Your task to perform on an android device: change keyboard looks Image 0: 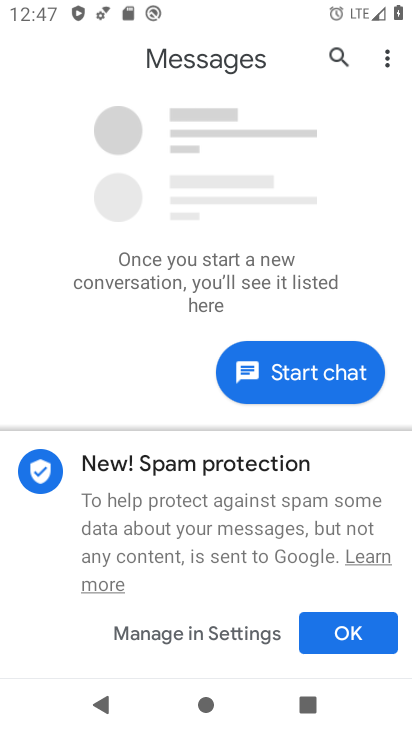
Step 0: press home button
Your task to perform on an android device: change keyboard looks Image 1: 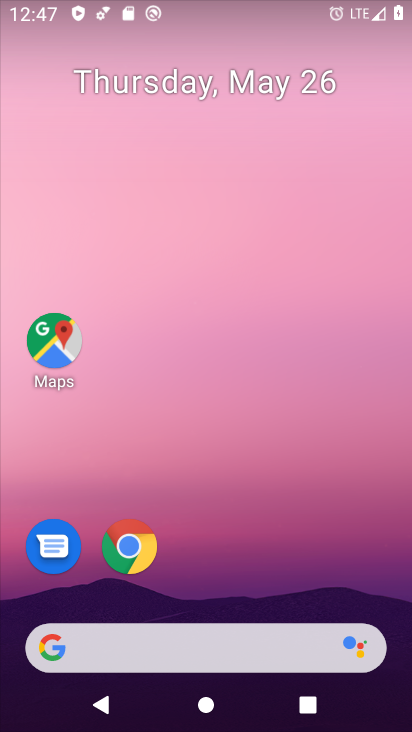
Step 1: drag from (383, 591) to (259, 22)
Your task to perform on an android device: change keyboard looks Image 2: 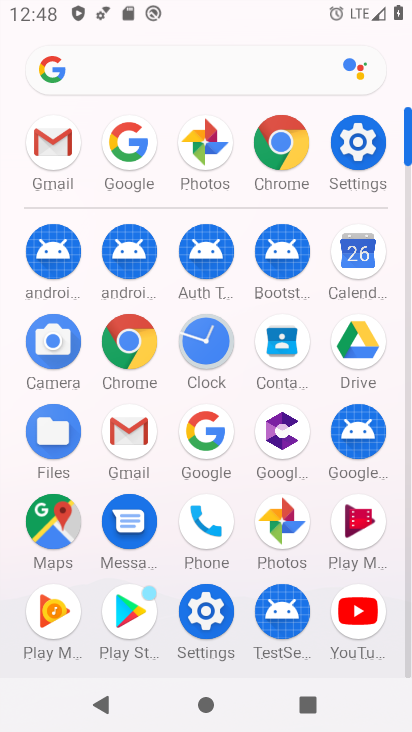
Step 2: click (230, 622)
Your task to perform on an android device: change keyboard looks Image 3: 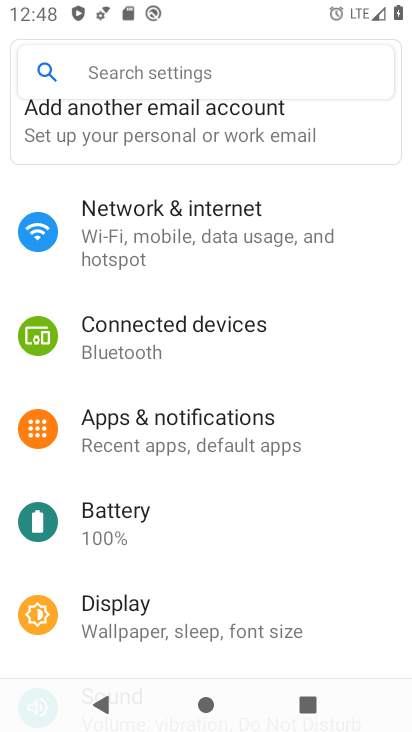
Step 3: drag from (117, 625) to (192, 133)
Your task to perform on an android device: change keyboard looks Image 4: 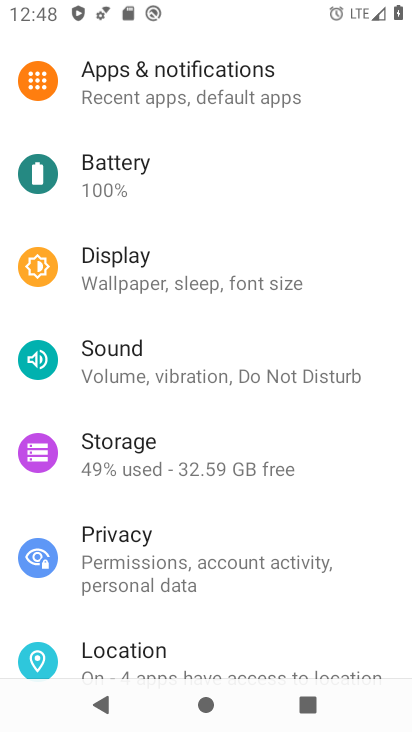
Step 4: drag from (177, 590) to (204, 111)
Your task to perform on an android device: change keyboard looks Image 5: 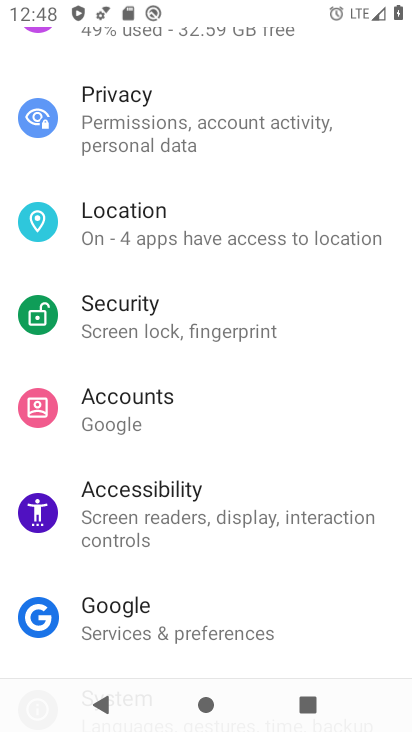
Step 5: drag from (177, 591) to (224, 83)
Your task to perform on an android device: change keyboard looks Image 6: 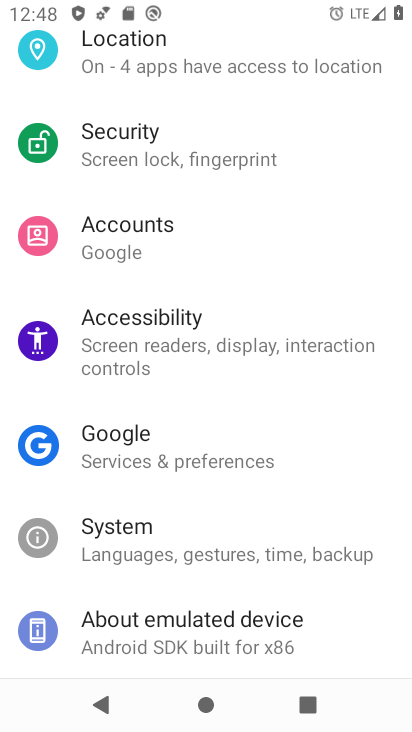
Step 6: click (231, 559)
Your task to perform on an android device: change keyboard looks Image 7: 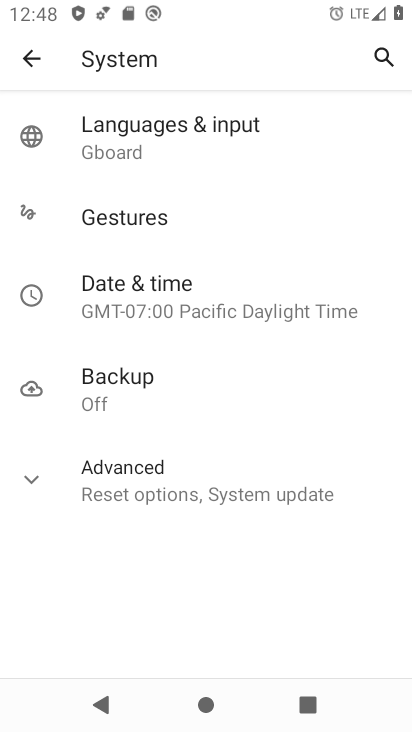
Step 7: click (271, 141)
Your task to perform on an android device: change keyboard looks Image 8: 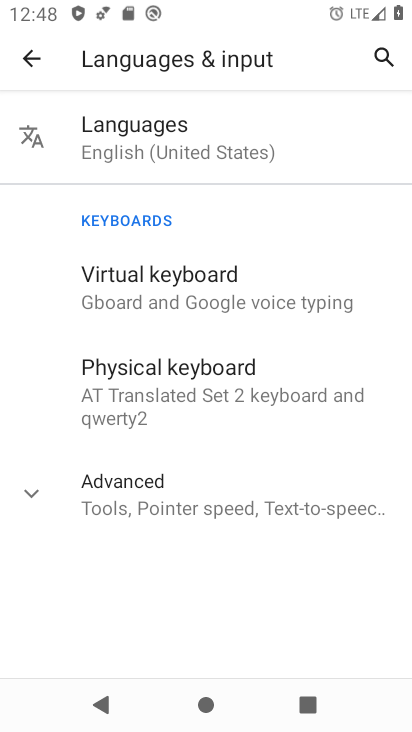
Step 8: click (135, 287)
Your task to perform on an android device: change keyboard looks Image 9: 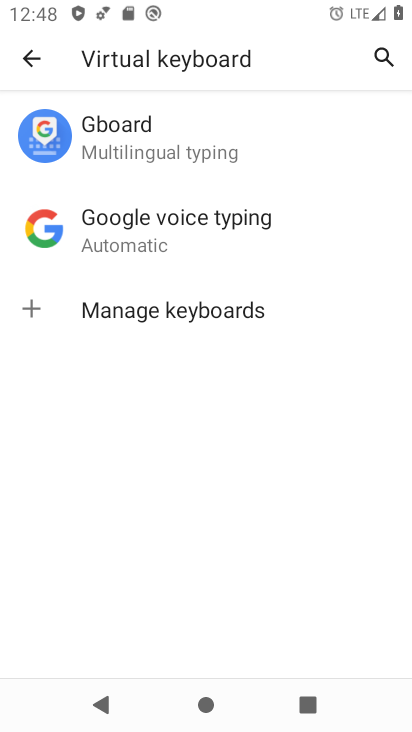
Step 9: click (207, 159)
Your task to perform on an android device: change keyboard looks Image 10: 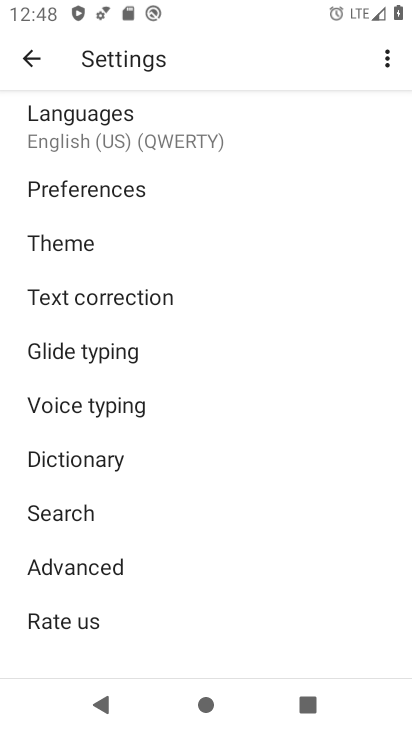
Step 10: click (103, 269)
Your task to perform on an android device: change keyboard looks Image 11: 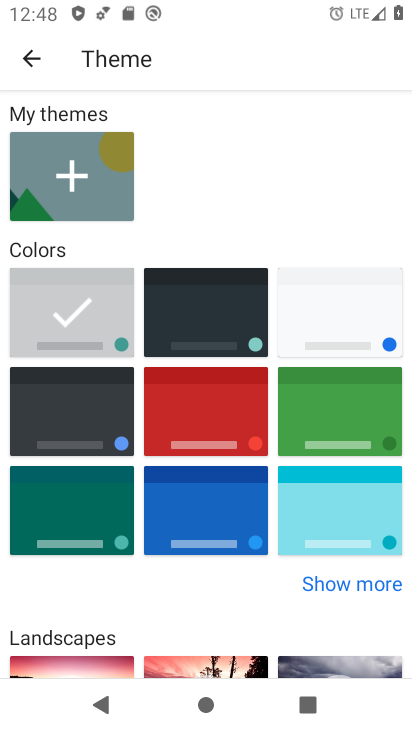
Step 11: click (217, 340)
Your task to perform on an android device: change keyboard looks Image 12: 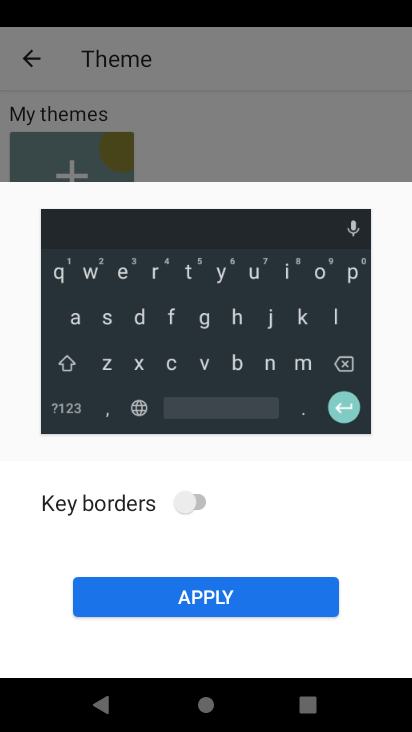
Step 12: click (230, 582)
Your task to perform on an android device: change keyboard looks Image 13: 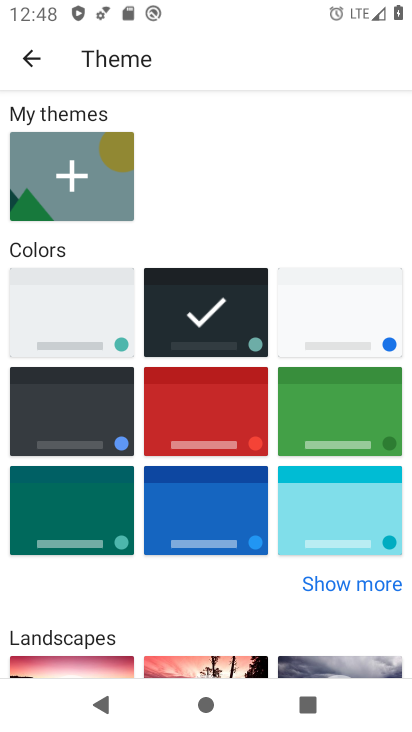
Step 13: task complete